Your task to perform on an android device: star an email in the gmail app Image 0: 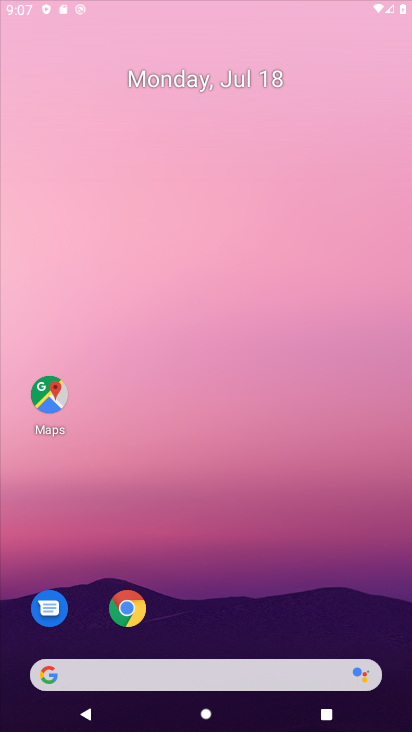
Step 0: click (225, 187)
Your task to perform on an android device: star an email in the gmail app Image 1: 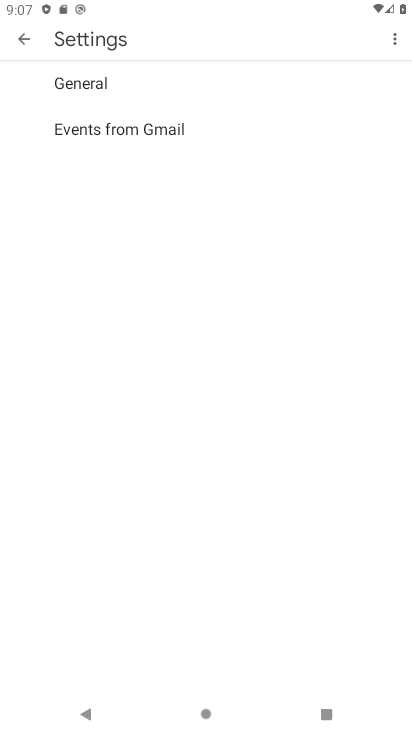
Step 1: click (24, 43)
Your task to perform on an android device: star an email in the gmail app Image 2: 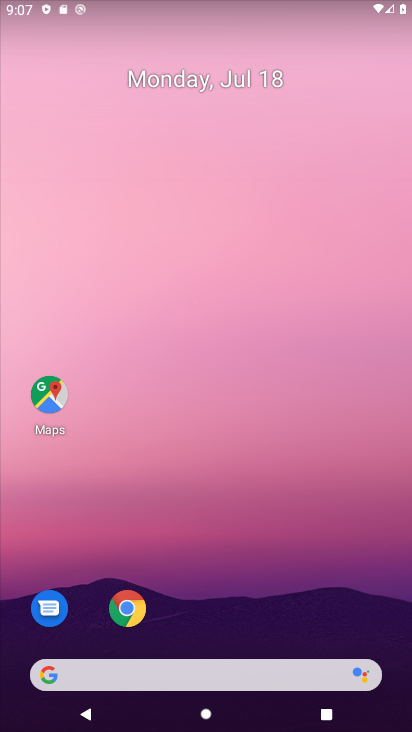
Step 2: drag from (182, 584) to (182, 108)
Your task to perform on an android device: star an email in the gmail app Image 3: 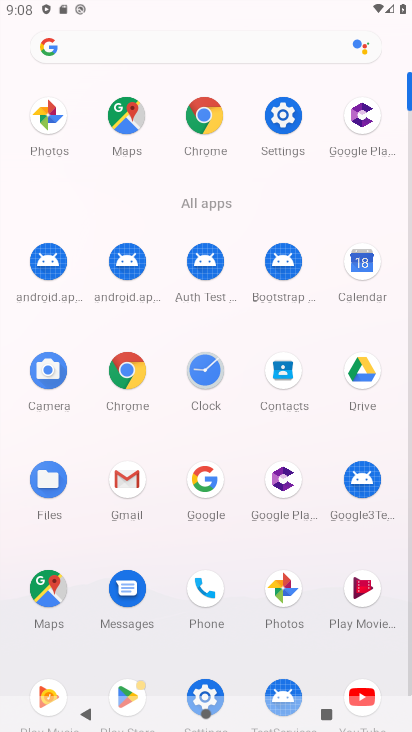
Step 3: click (135, 470)
Your task to perform on an android device: star an email in the gmail app Image 4: 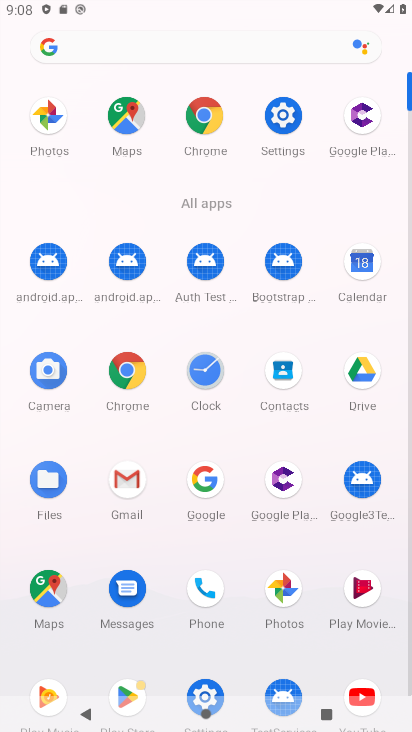
Step 4: click (132, 474)
Your task to perform on an android device: star an email in the gmail app Image 5: 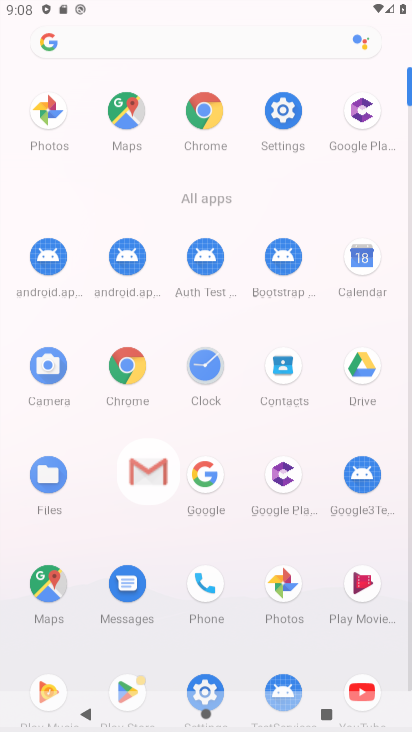
Step 5: click (127, 483)
Your task to perform on an android device: star an email in the gmail app Image 6: 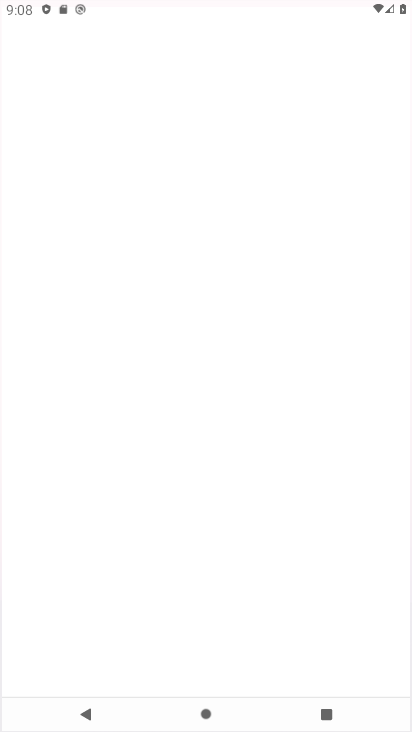
Step 6: click (127, 483)
Your task to perform on an android device: star an email in the gmail app Image 7: 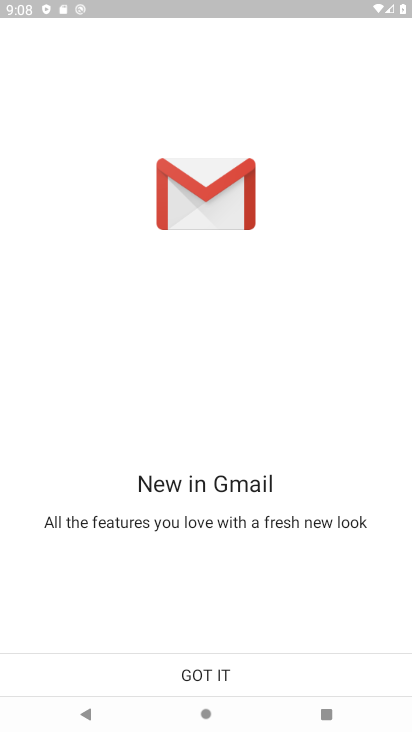
Step 7: click (216, 666)
Your task to perform on an android device: star an email in the gmail app Image 8: 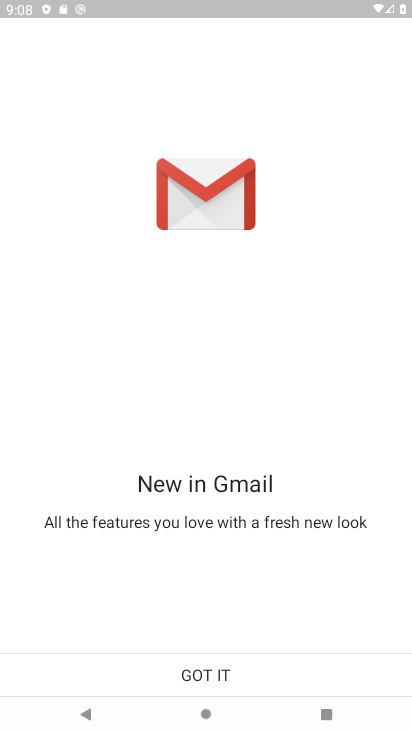
Step 8: click (216, 666)
Your task to perform on an android device: star an email in the gmail app Image 9: 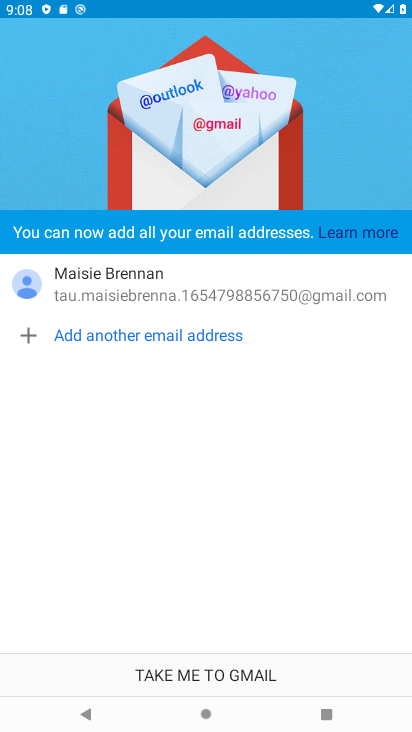
Step 9: click (216, 675)
Your task to perform on an android device: star an email in the gmail app Image 10: 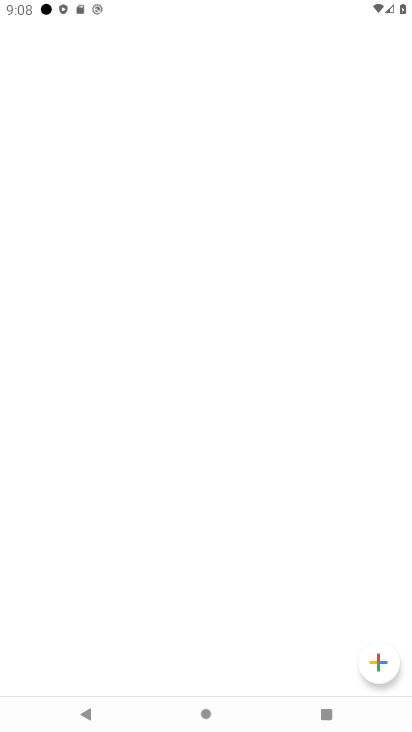
Step 10: click (225, 663)
Your task to perform on an android device: star an email in the gmail app Image 11: 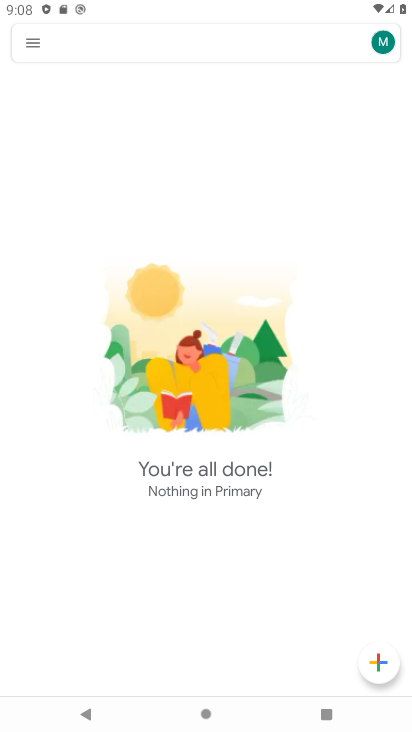
Step 11: click (27, 50)
Your task to perform on an android device: star an email in the gmail app Image 12: 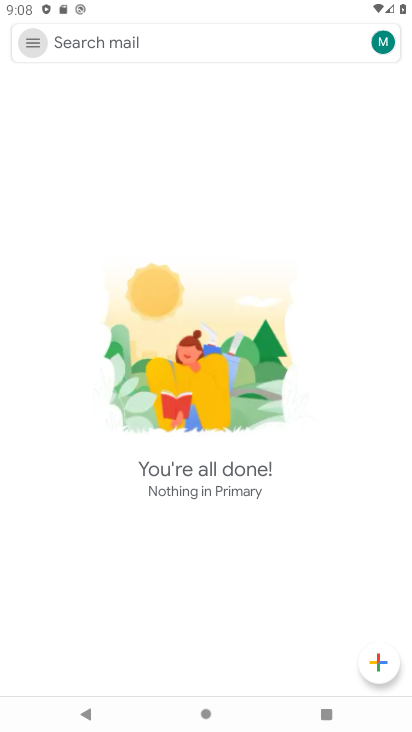
Step 12: click (34, 45)
Your task to perform on an android device: star an email in the gmail app Image 13: 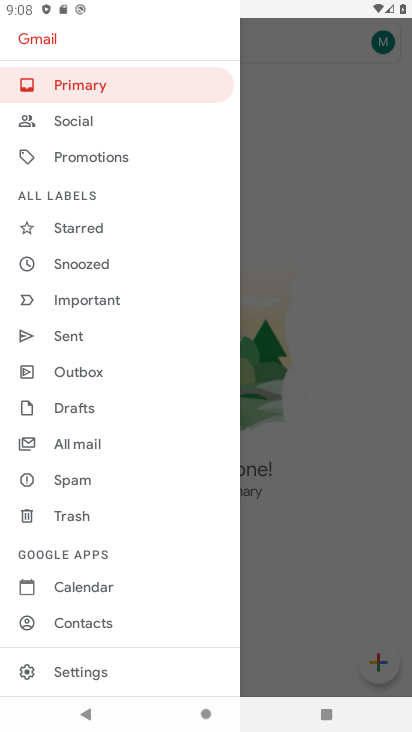
Step 13: click (66, 445)
Your task to perform on an android device: star an email in the gmail app Image 14: 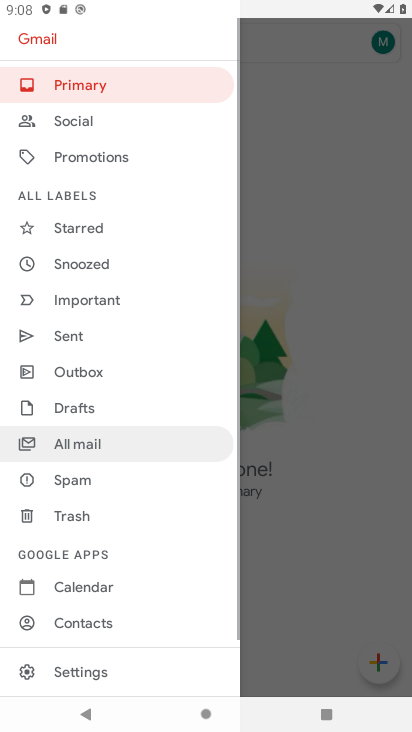
Step 14: click (71, 441)
Your task to perform on an android device: star an email in the gmail app Image 15: 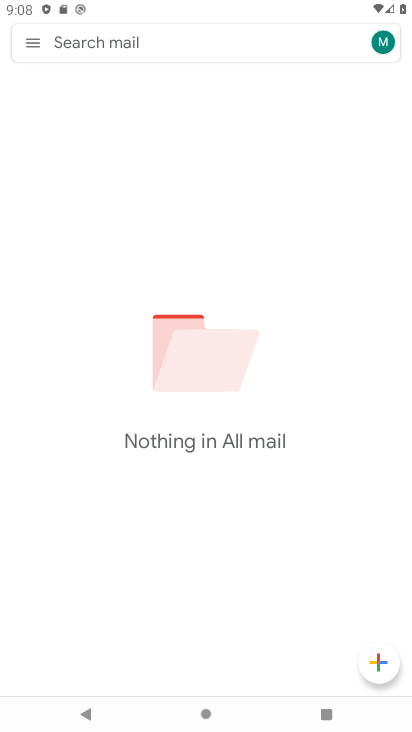
Step 15: task complete